Your task to perform on an android device: check the backup settings in the google photos Image 0: 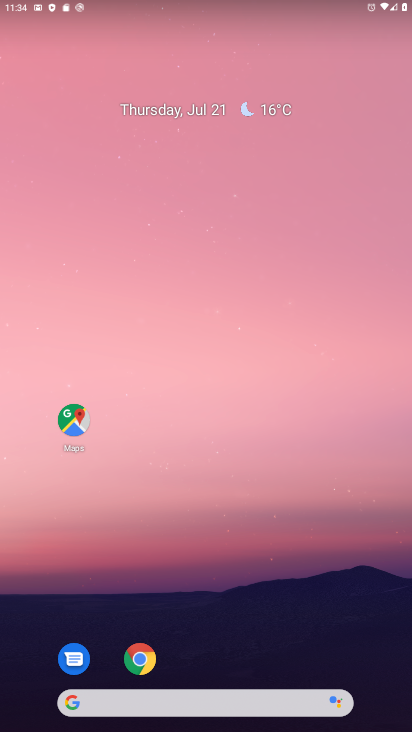
Step 0: drag from (220, 647) to (188, 156)
Your task to perform on an android device: check the backup settings in the google photos Image 1: 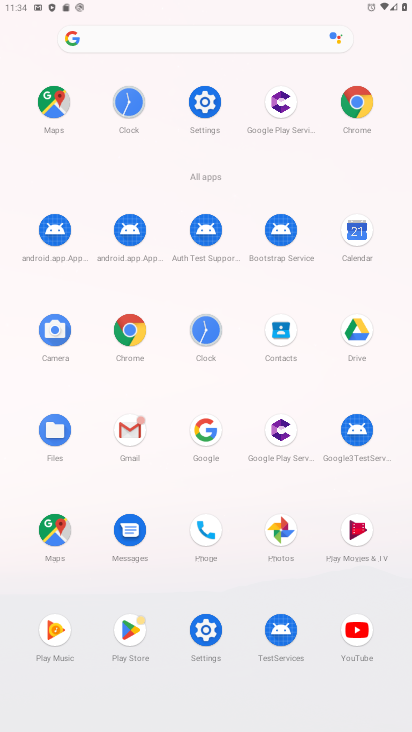
Step 1: click (279, 535)
Your task to perform on an android device: check the backup settings in the google photos Image 2: 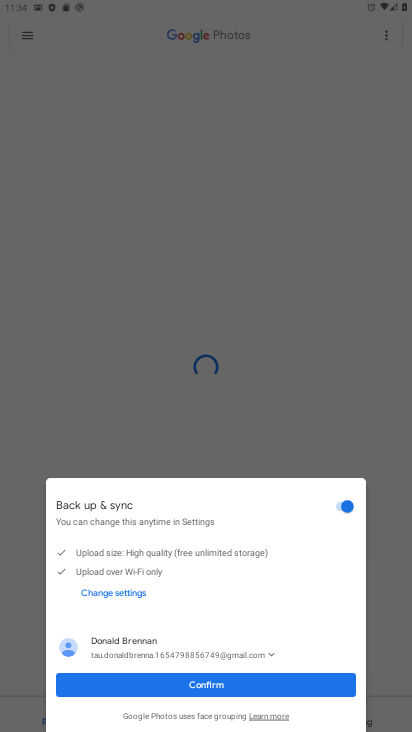
Step 2: click (201, 685)
Your task to perform on an android device: check the backup settings in the google photos Image 3: 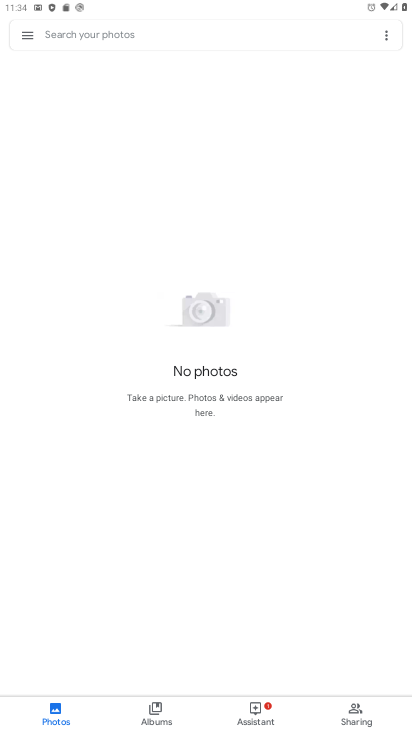
Step 3: click (25, 38)
Your task to perform on an android device: check the backup settings in the google photos Image 4: 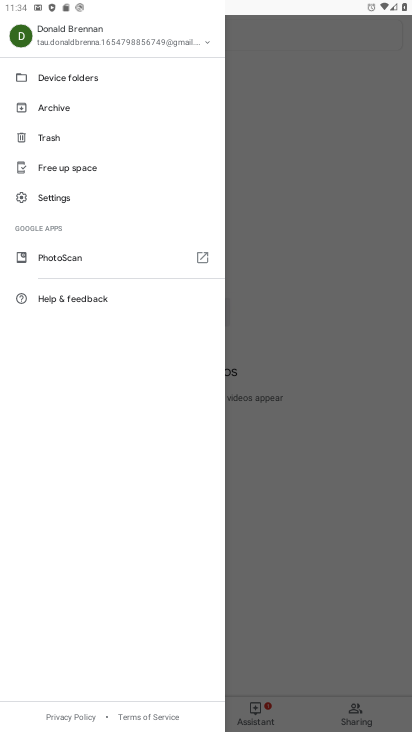
Step 4: click (58, 194)
Your task to perform on an android device: check the backup settings in the google photos Image 5: 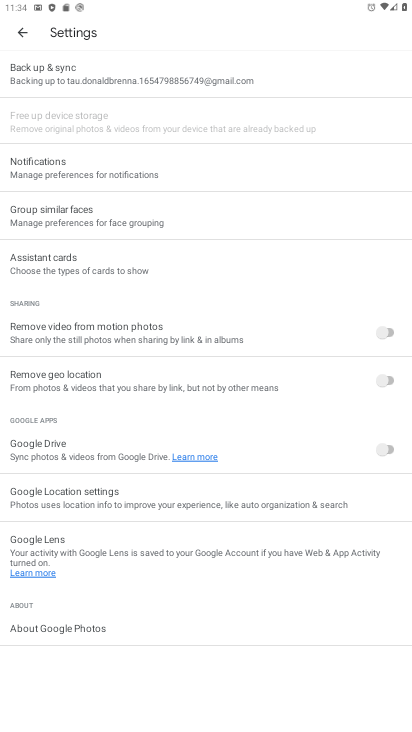
Step 5: click (58, 66)
Your task to perform on an android device: check the backup settings in the google photos Image 6: 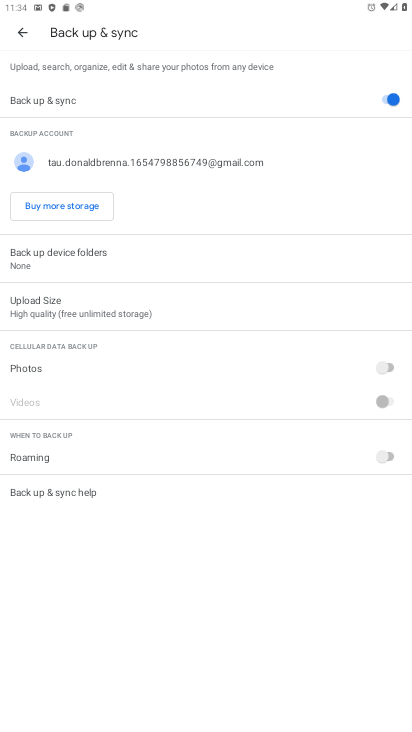
Step 6: task complete